Your task to perform on an android device: turn on showing notifications on the lock screen Image 0: 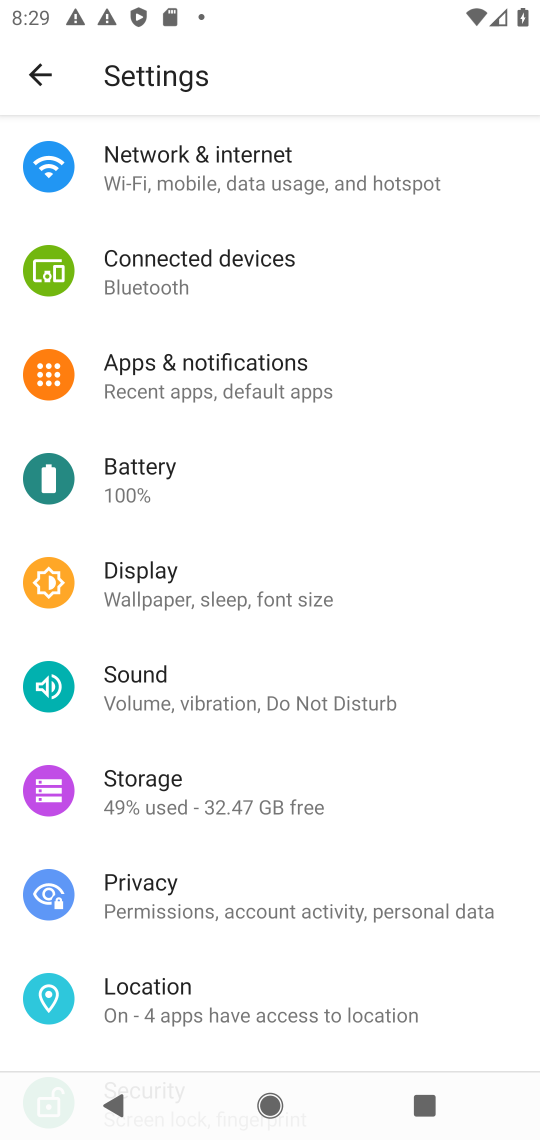
Step 0: press home button
Your task to perform on an android device: turn on showing notifications on the lock screen Image 1: 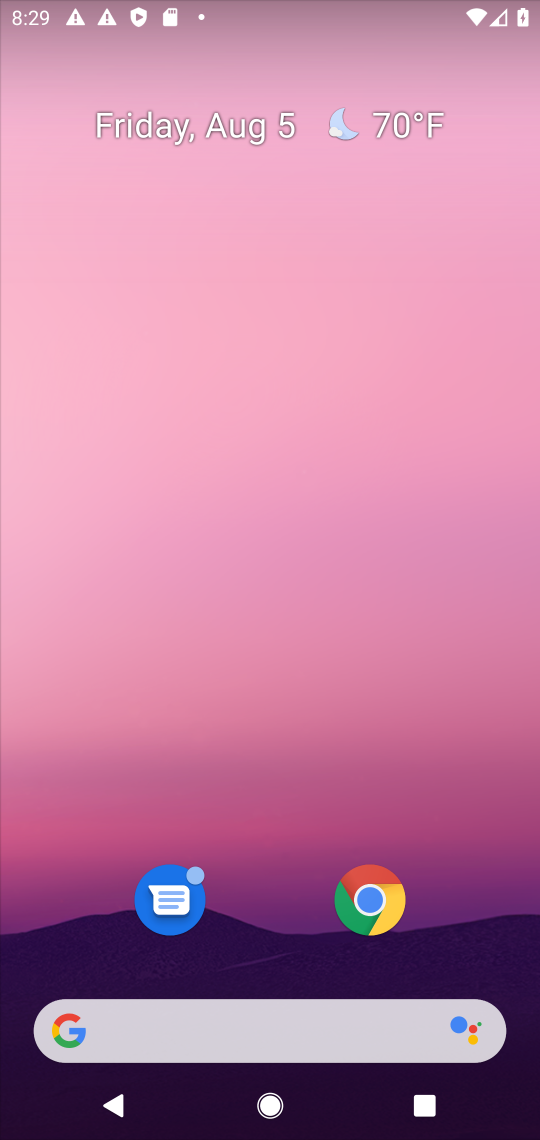
Step 1: drag from (278, 939) to (293, 75)
Your task to perform on an android device: turn on showing notifications on the lock screen Image 2: 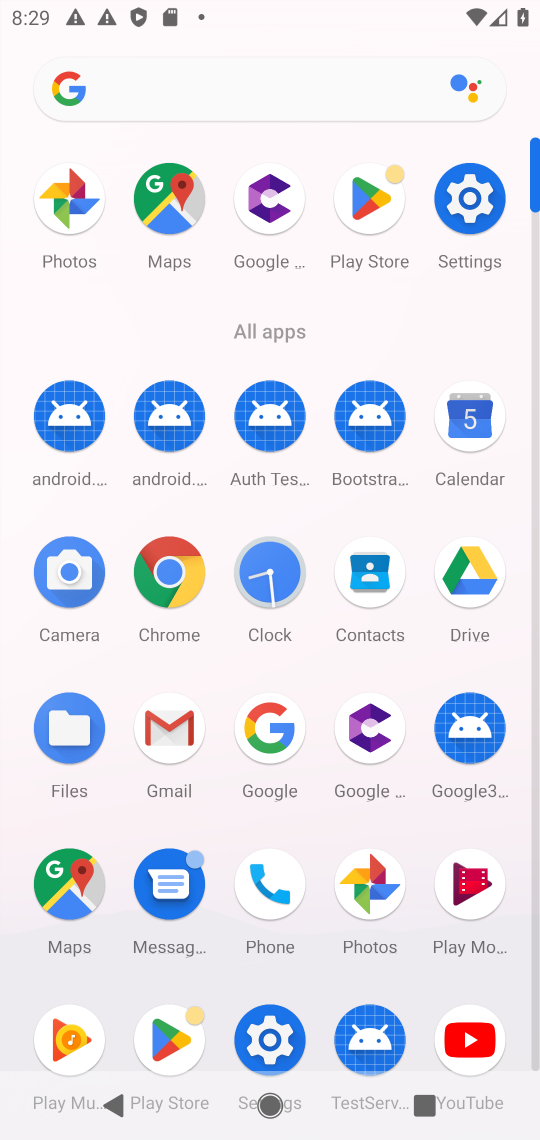
Step 2: click (280, 1026)
Your task to perform on an android device: turn on showing notifications on the lock screen Image 3: 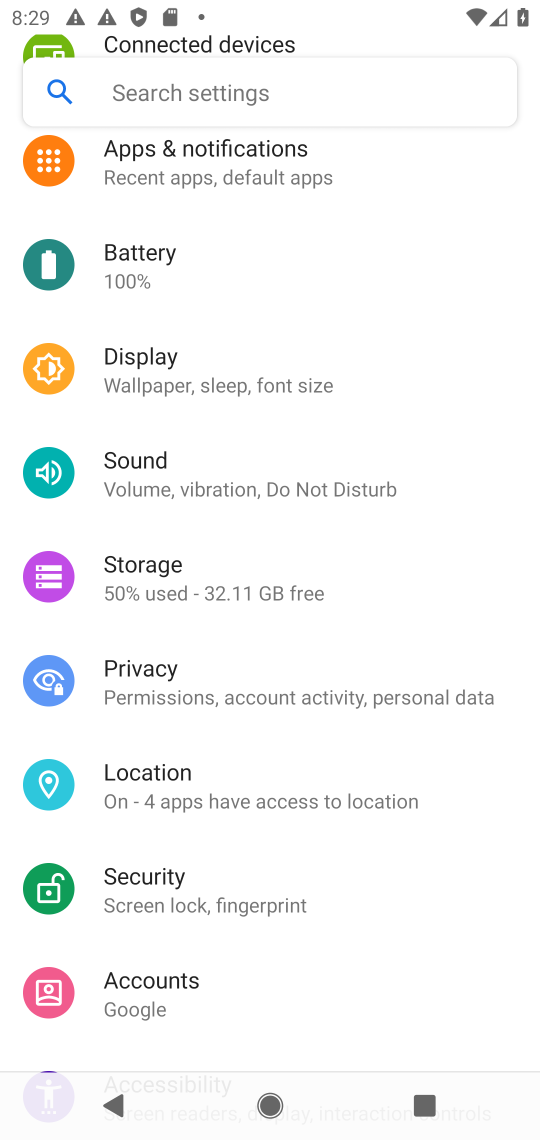
Step 3: drag from (276, 341) to (222, 817)
Your task to perform on an android device: turn on showing notifications on the lock screen Image 4: 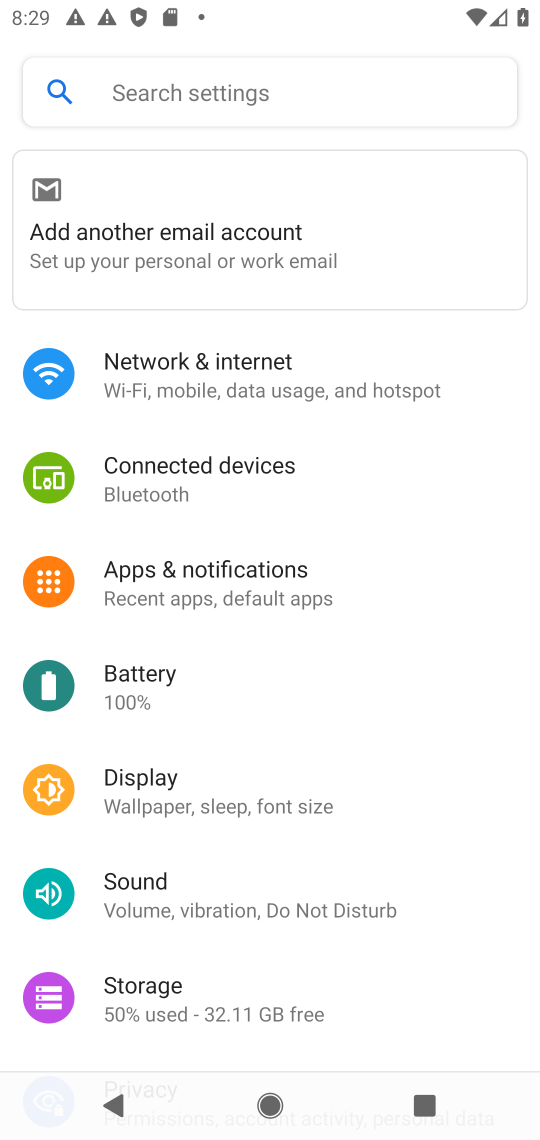
Step 4: click (235, 578)
Your task to perform on an android device: turn on showing notifications on the lock screen Image 5: 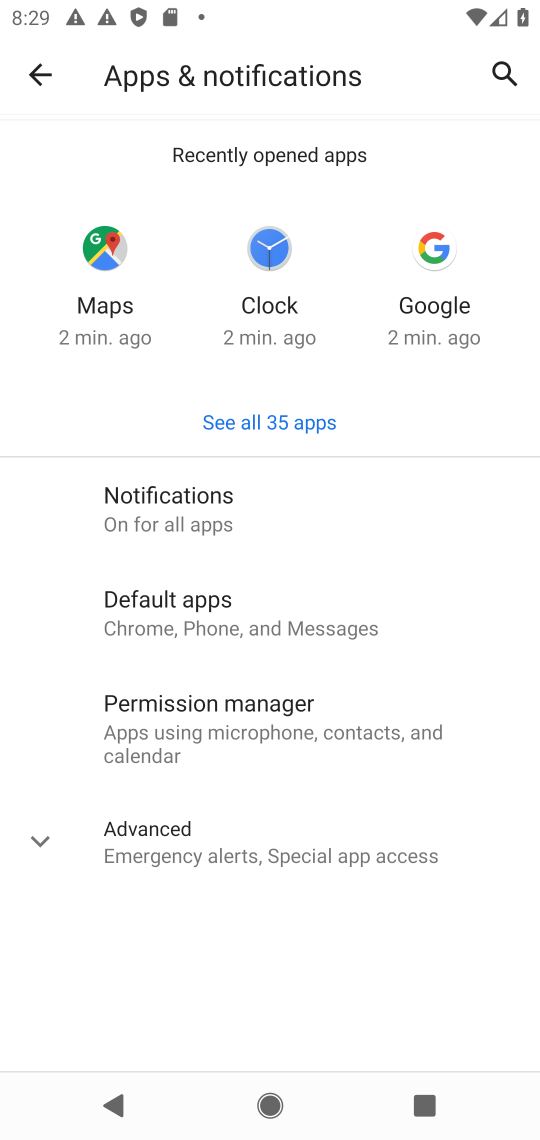
Step 5: click (231, 496)
Your task to perform on an android device: turn on showing notifications on the lock screen Image 6: 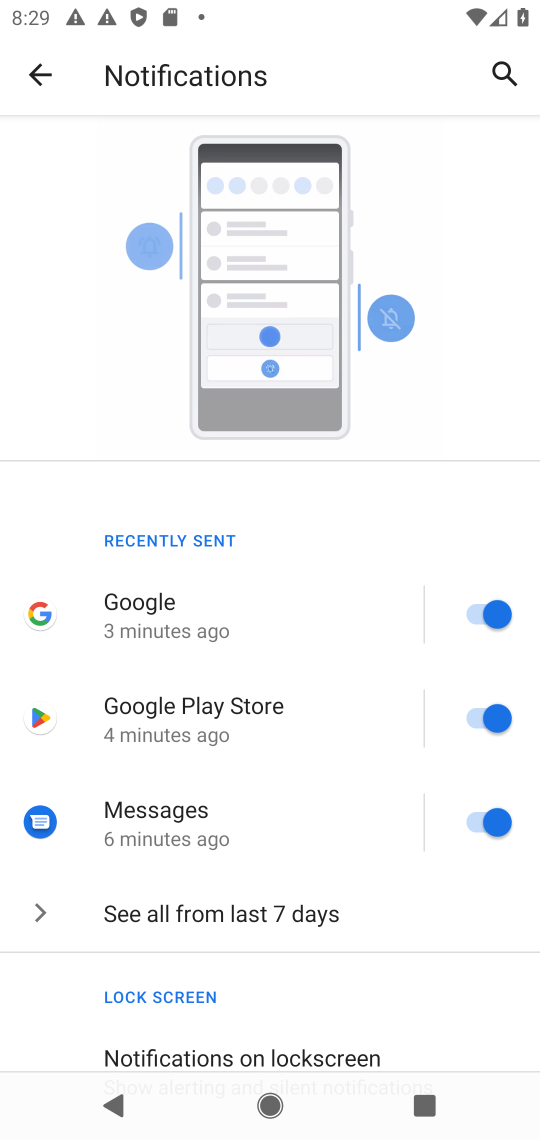
Step 6: drag from (268, 995) to (282, 480)
Your task to perform on an android device: turn on showing notifications on the lock screen Image 7: 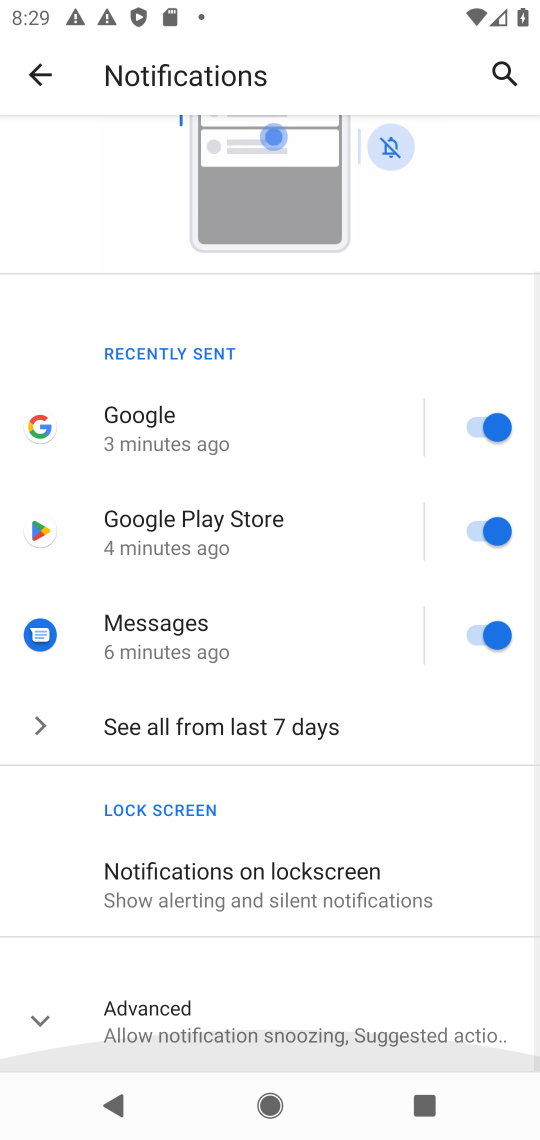
Step 7: click (211, 877)
Your task to perform on an android device: turn on showing notifications on the lock screen Image 8: 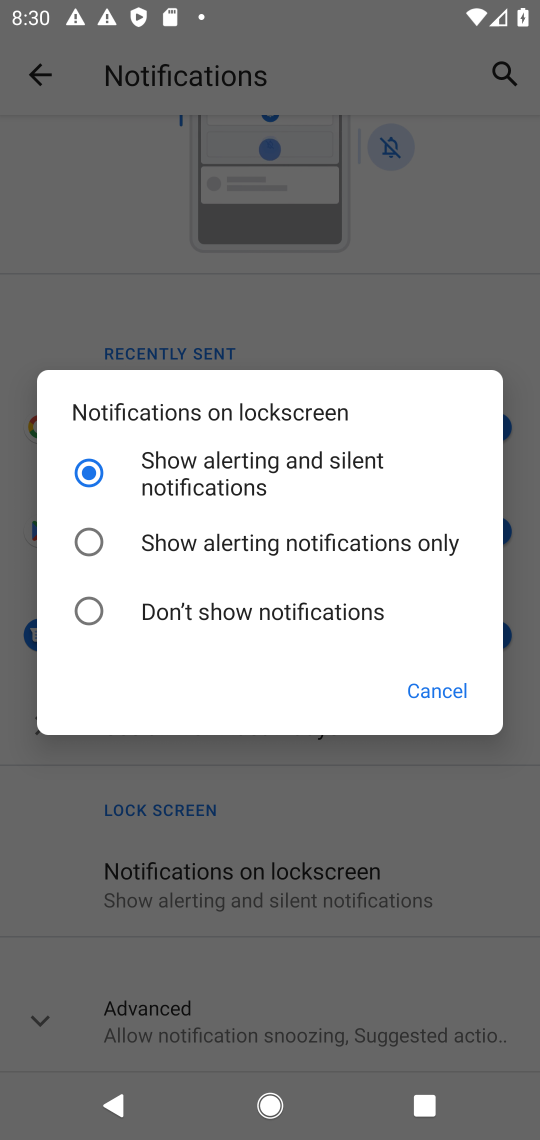
Step 8: task complete